Your task to perform on an android device: Go to Yahoo.com Image 0: 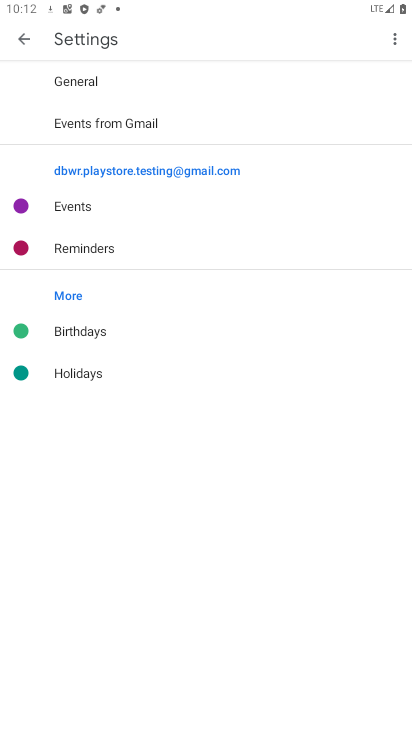
Step 0: press home button
Your task to perform on an android device: Go to Yahoo.com Image 1: 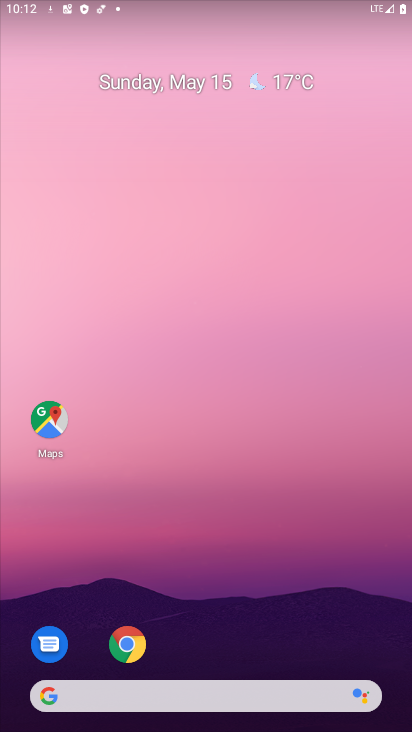
Step 1: drag from (308, 707) to (263, 313)
Your task to perform on an android device: Go to Yahoo.com Image 2: 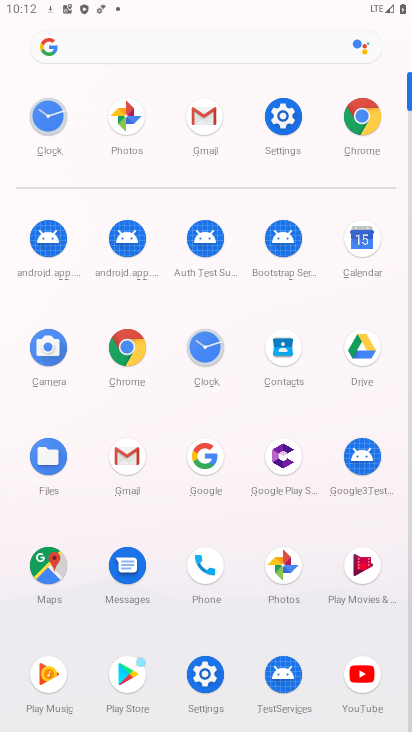
Step 2: click (354, 122)
Your task to perform on an android device: Go to Yahoo.com Image 3: 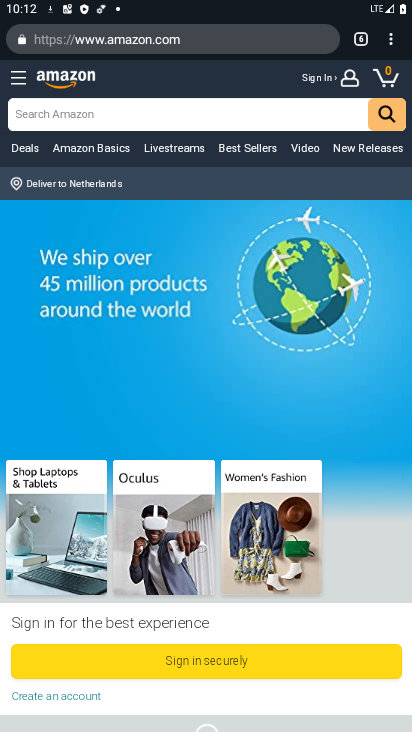
Step 3: click (197, 46)
Your task to perform on an android device: Go to Yahoo.com Image 4: 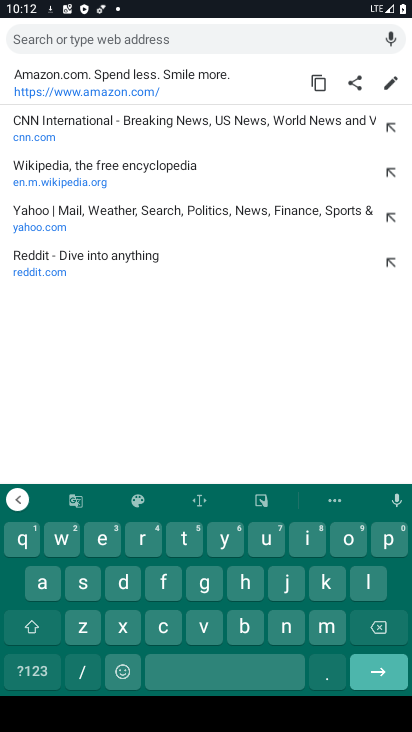
Step 4: click (228, 556)
Your task to perform on an android device: Go to Yahoo.com Image 5: 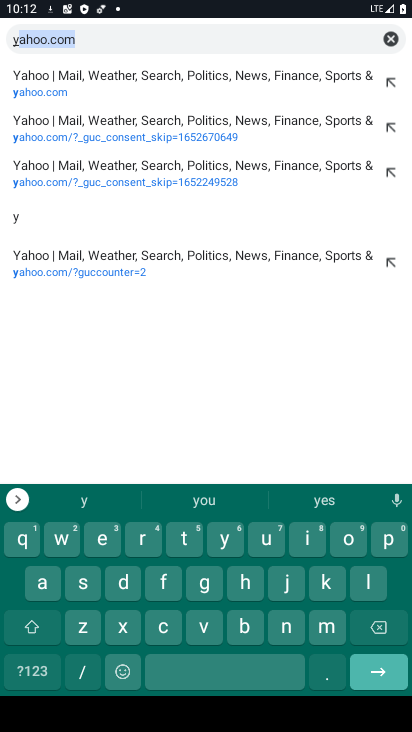
Step 5: click (88, 40)
Your task to perform on an android device: Go to Yahoo.com Image 6: 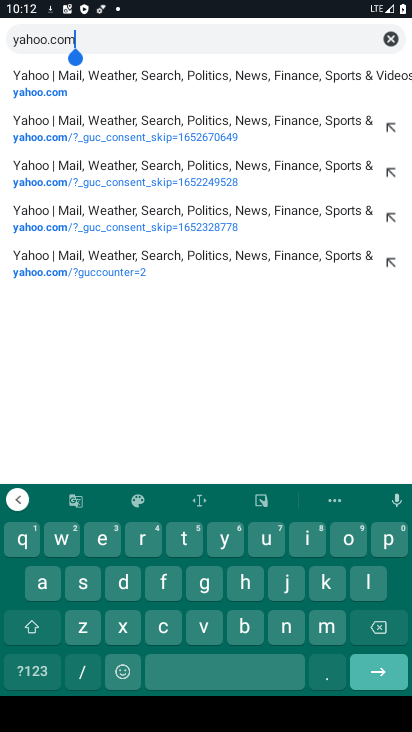
Step 6: click (374, 670)
Your task to perform on an android device: Go to Yahoo.com Image 7: 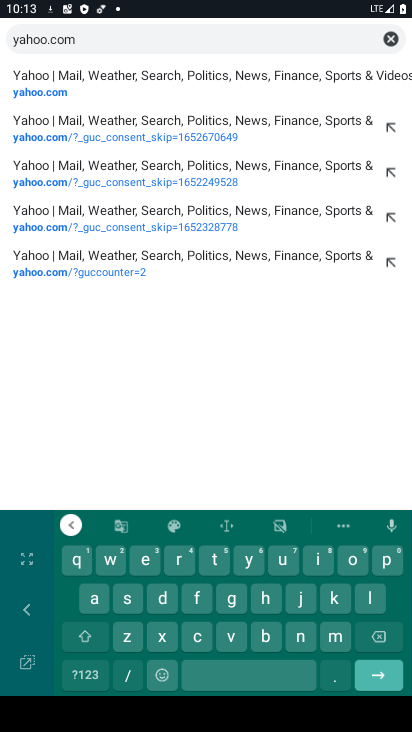
Step 7: click (376, 678)
Your task to perform on an android device: Go to Yahoo.com Image 8: 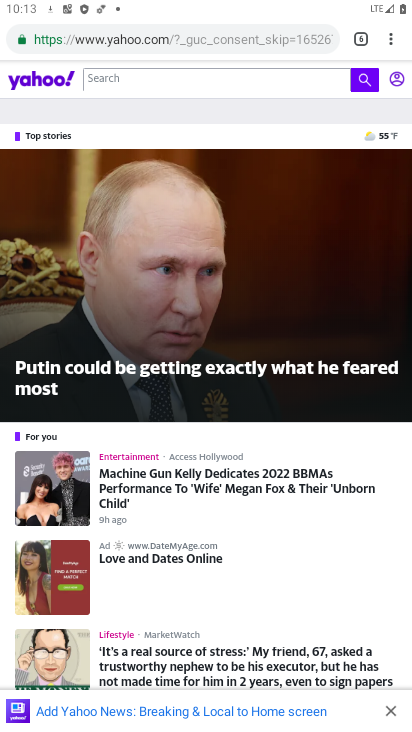
Step 8: task complete